Your task to perform on an android device: Open calendar and show me the fourth week of next month Image 0: 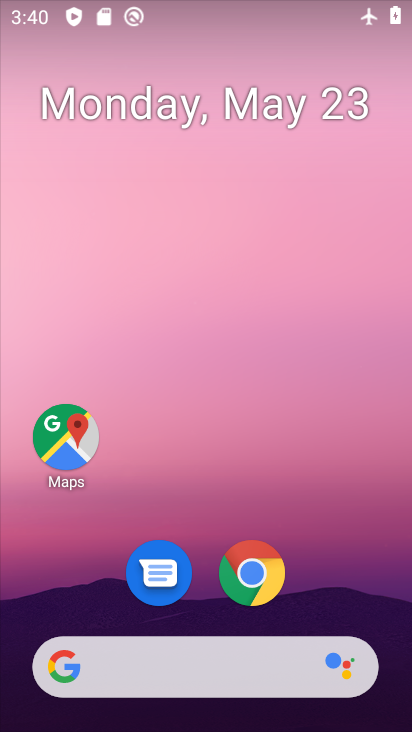
Step 0: drag from (192, 720) to (111, 141)
Your task to perform on an android device: Open calendar and show me the fourth week of next month Image 1: 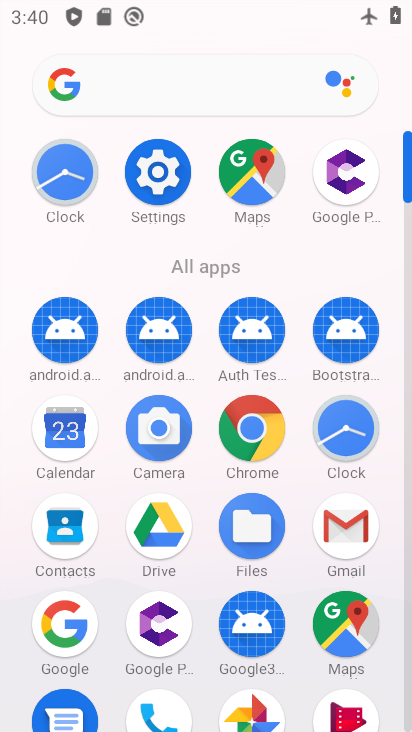
Step 1: click (57, 424)
Your task to perform on an android device: Open calendar and show me the fourth week of next month Image 2: 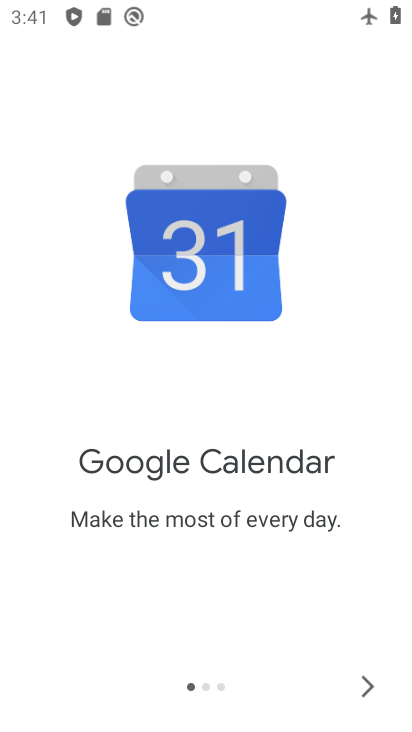
Step 2: click (371, 684)
Your task to perform on an android device: Open calendar and show me the fourth week of next month Image 3: 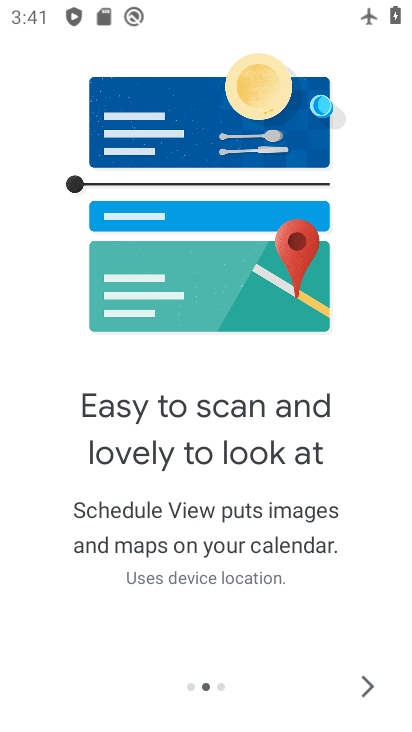
Step 3: click (371, 684)
Your task to perform on an android device: Open calendar and show me the fourth week of next month Image 4: 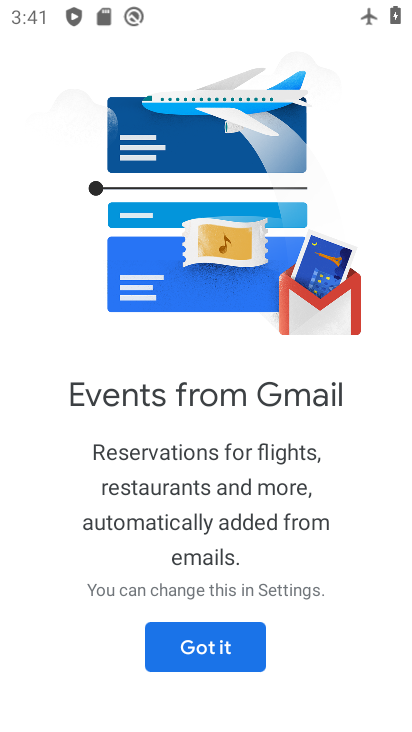
Step 4: click (371, 684)
Your task to perform on an android device: Open calendar and show me the fourth week of next month Image 5: 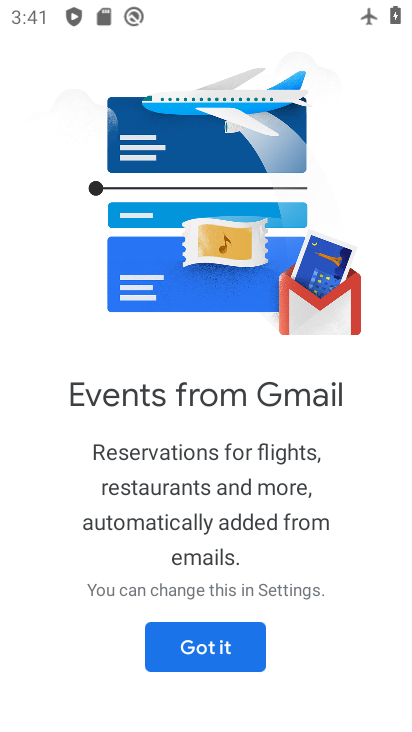
Step 5: click (216, 645)
Your task to perform on an android device: Open calendar and show me the fourth week of next month Image 6: 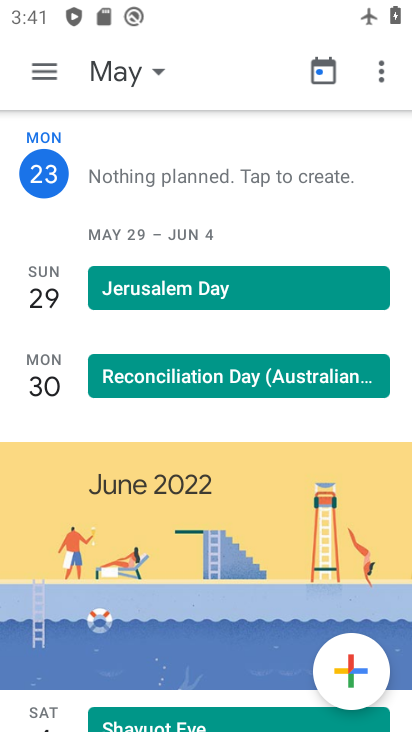
Step 6: click (144, 72)
Your task to perform on an android device: Open calendar and show me the fourth week of next month Image 7: 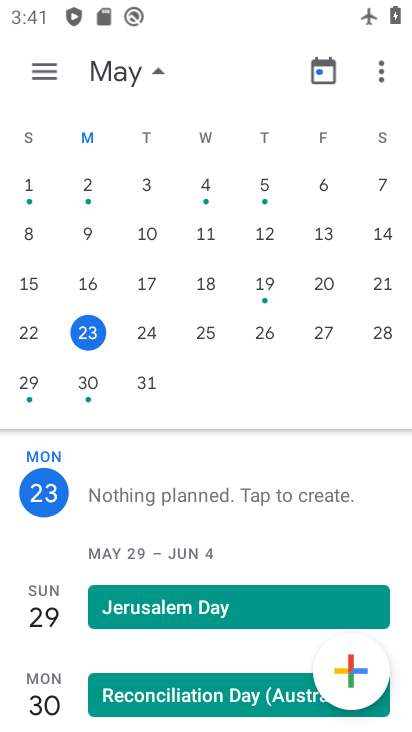
Step 7: drag from (363, 256) to (1, 225)
Your task to perform on an android device: Open calendar and show me the fourth week of next month Image 8: 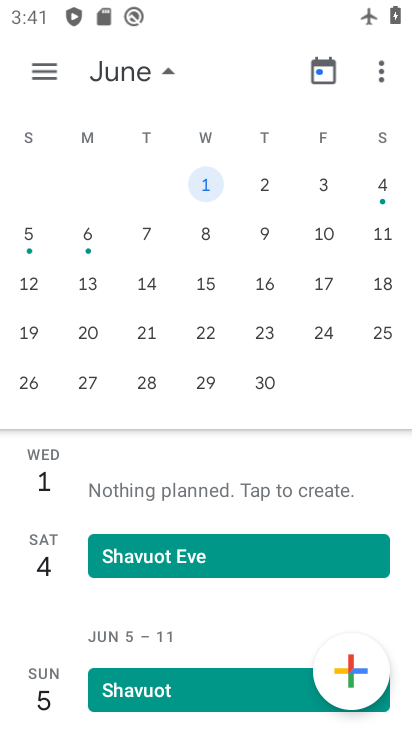
Step 8: click (85, 386)
Your task to perform on an android device: Open calendar and show me the fourth week of next month Image 9: 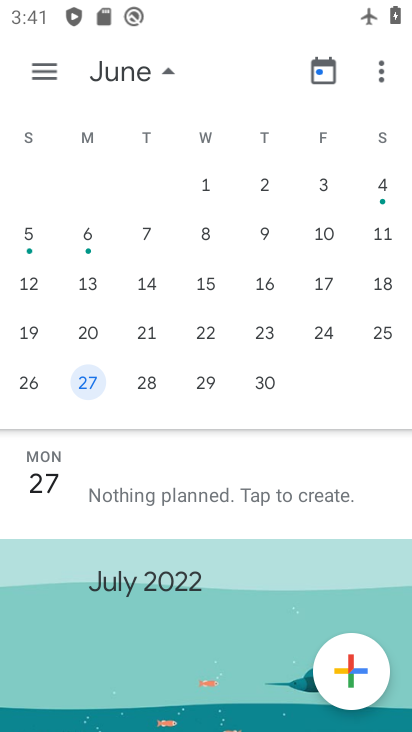
Step 9: click (40, 68)
Your task to perform on an android device: Open calendar and show me the fourth week of next month Image 10: 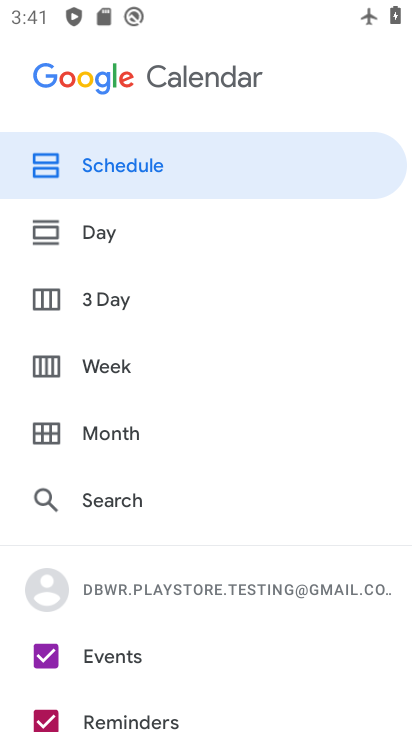
Step 10: click (107, 359)
Your task to perform on an android device: Open calendar and show me the fourth week of next month Image 11: 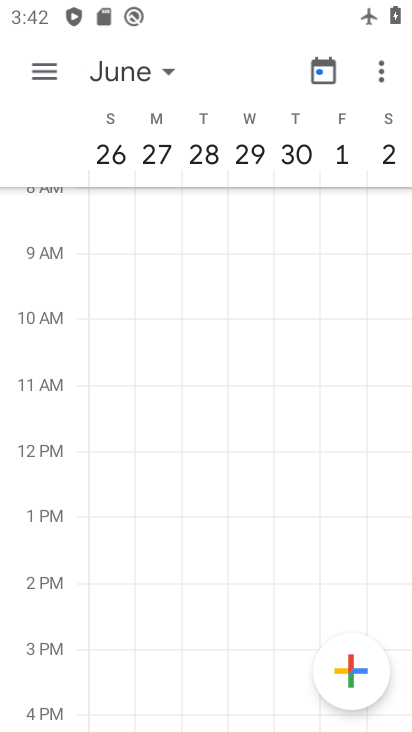
Step 11: task complete